Your task to perform on an android device: turn off airplane mode Image 0: 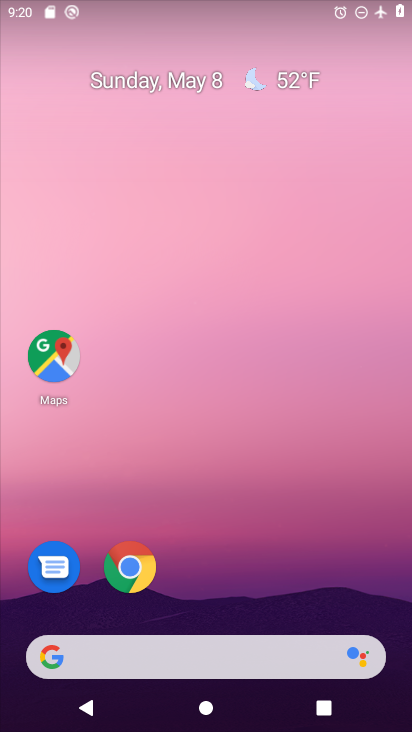
Step 0: drag from (371, 563) to (343, 124)
Your task to perform on an android device: turn off airplane mode Image 1: 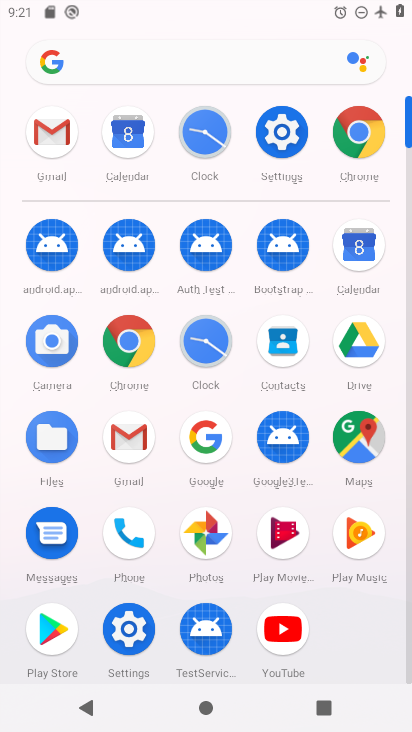
Step 1: click (279, 134)
Your task to perform on an android device: turn off airplane mode Image 2: 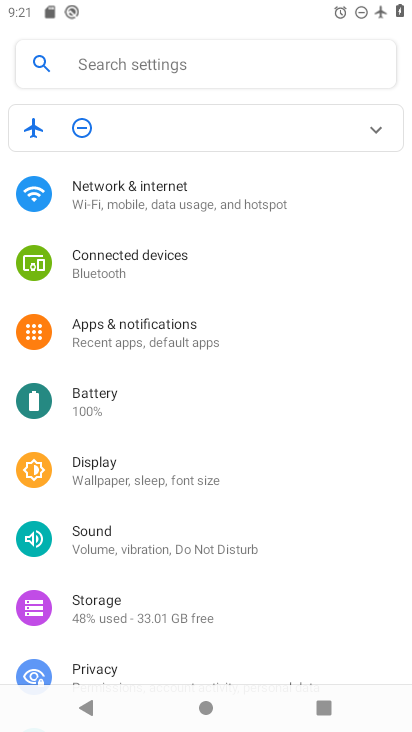
Step 2: click (201, 190)
Your task to perform on an android device: turn off airplane mode Image 3: 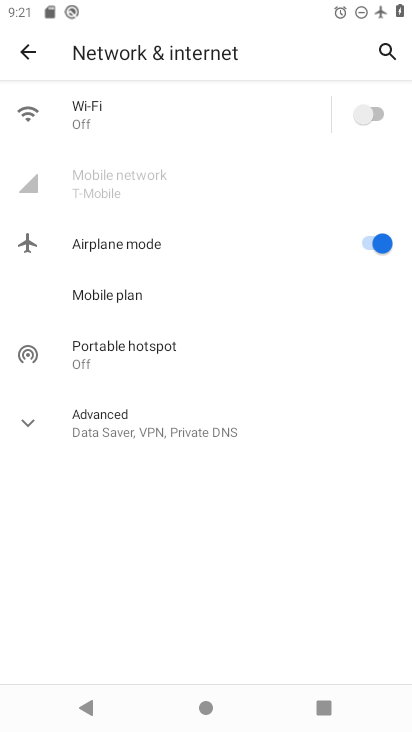
Step 3: click (373, 254)
Your task to perform on an android device: turn off airplane mode Image 4: 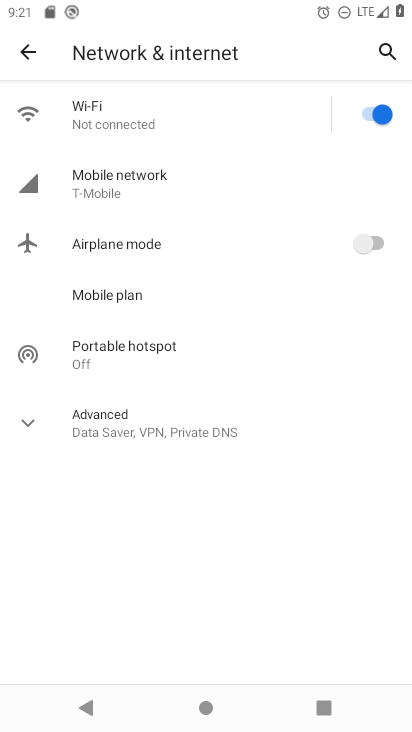
Step 4: task complete